Your task to perform on an android device: What is the recent news? Image 0: 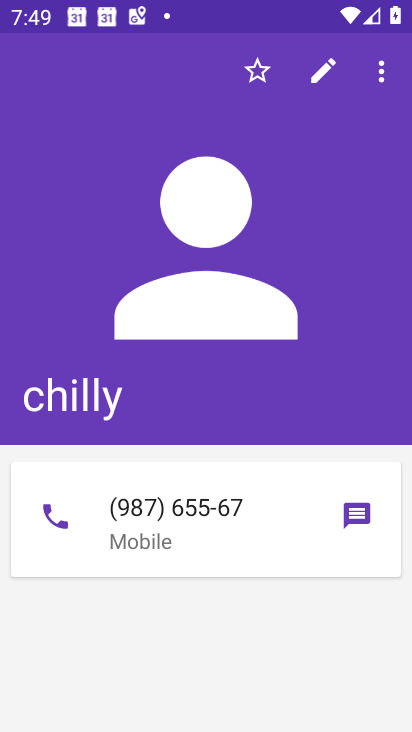
Step 0: press home button
Your task to perform on an android device: What is the recent news? Image 1: 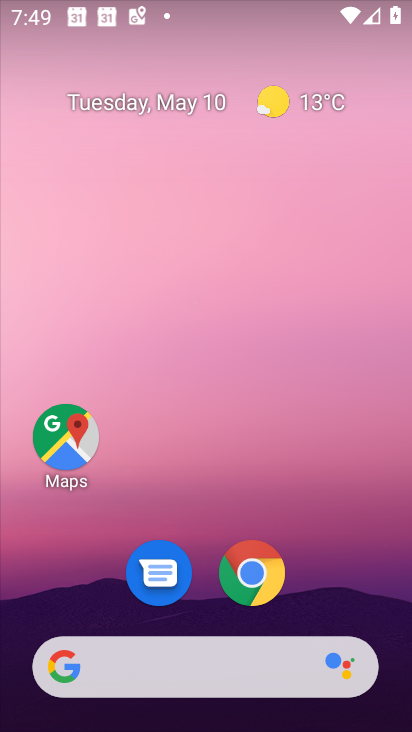
Step 1: click (149, 675)
Your task to perform on an android device: What is the recent news? Image 2: 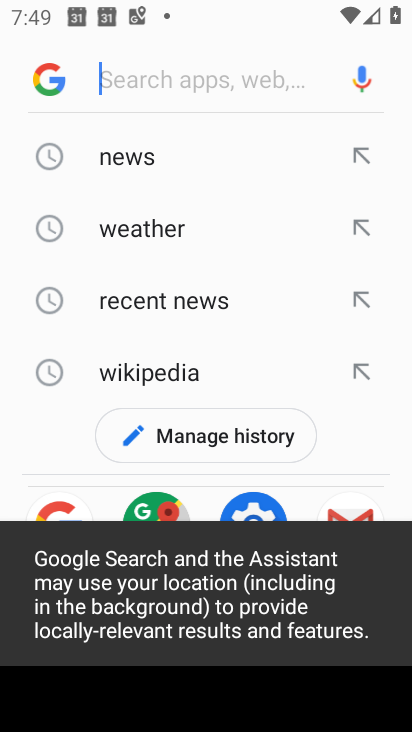
Step 2: click (143, 305)
Your task to perform on an android device: What is the recent news? Image 3: 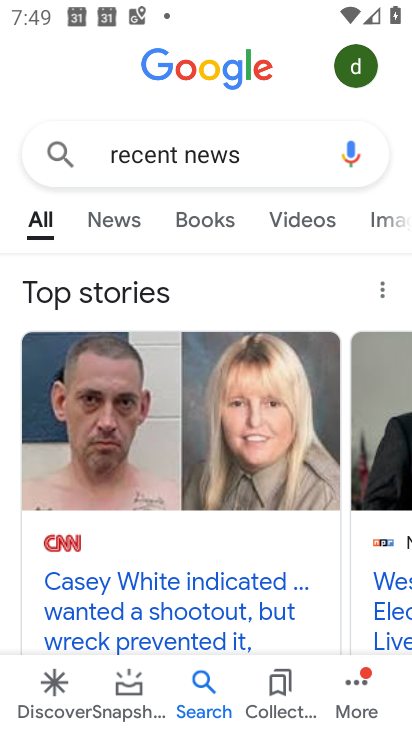
Step 3: drag from (161, 601) to (147, 357)
Your task to perform on an android device: What is the recent news? Image 4: 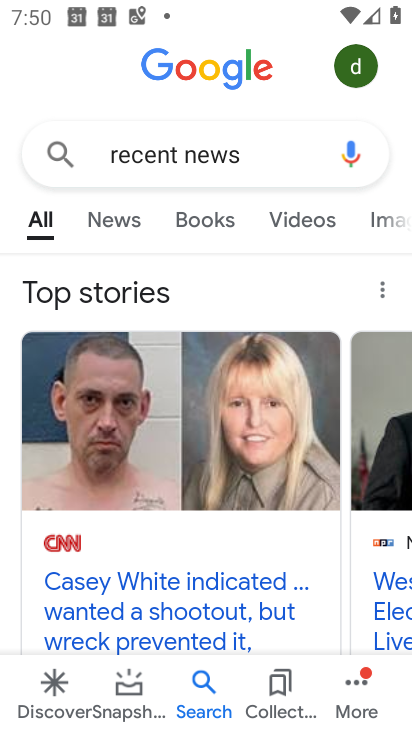
Step 4: click (115, 222)
Your task to perform on an android device: What is the recent news? Image 5: 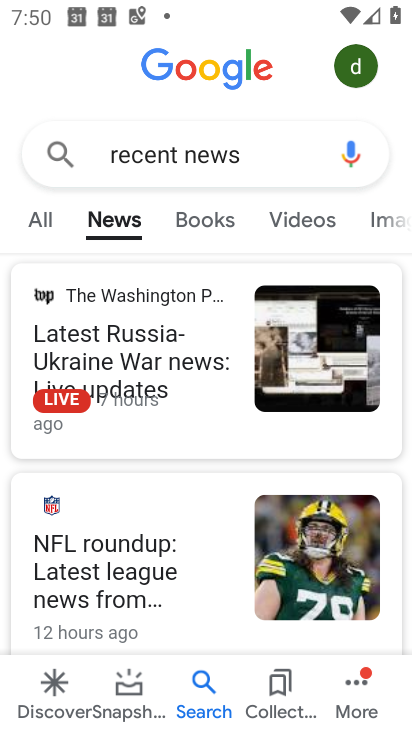
Step 5: drag from (142, 494) to (138, 312)
Your task to perform on an android device: What is the recent news? Image 6: 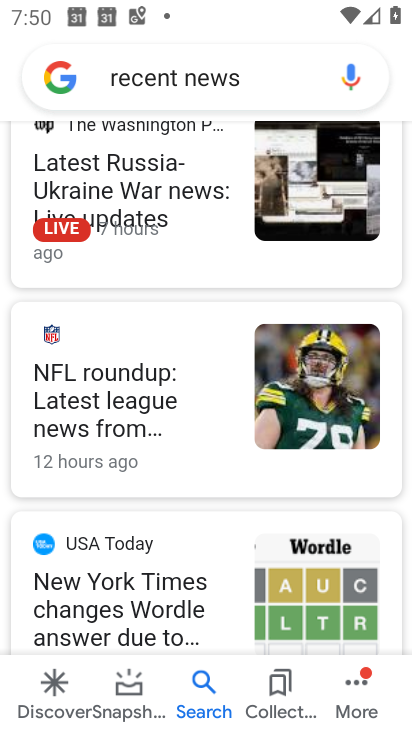
Step 6: drag from (129, 195) to (144, 595)
Your task to perform on an android device: What is the recent news? Image 7: 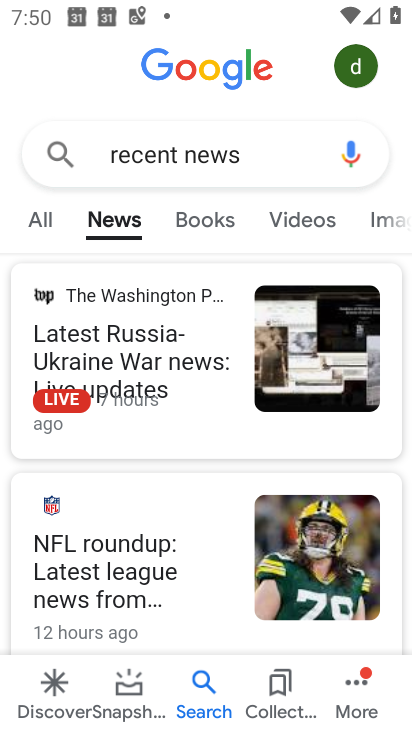
Step 7: drag from (150, 335) to (156, 520)
Your task to perform on an android device: What is the recent news? Image 8: 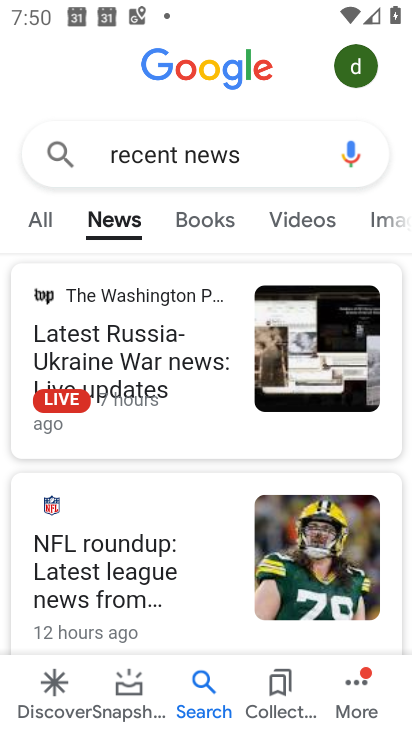
Step 8: click (144, 375)
Your task to perform on an android device: What is the recent news? Image 9: 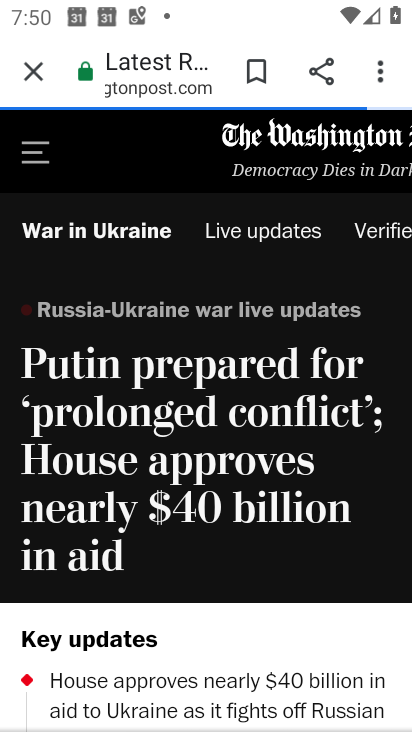
Step 9: task complete